Your task to perform on an android device: open a new tab in the chrome app Image 0: 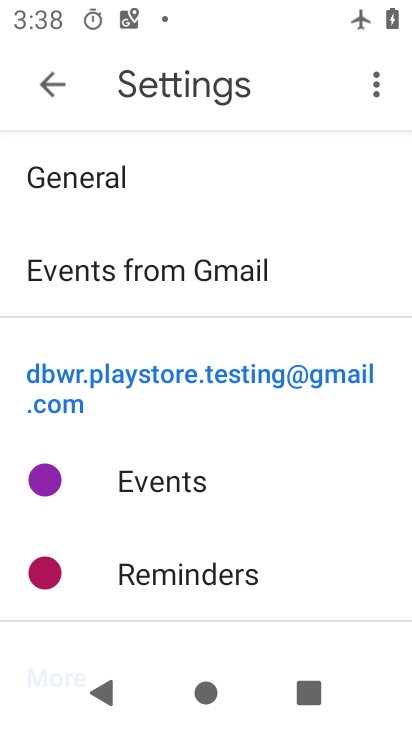
Step 0: press home button
Your task to perform on an android device: open a new tab in the chrome app Image 1: 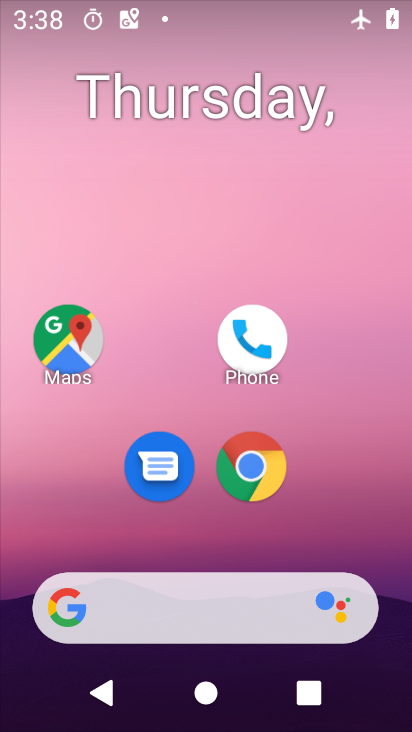
Step 1: click (234, 472)
Your task to perform on an android device: open a new tab in the chrome app Image 2: 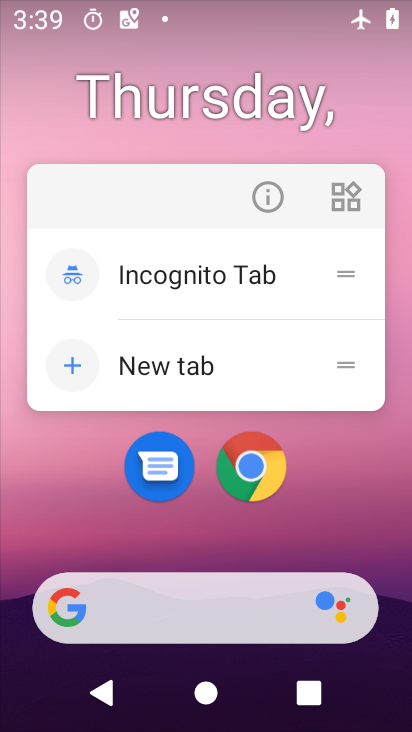
Step 2: drag from (200, 533) to (288, 1)
Your task to perform on an android device: open a new tab in the chrome app Image 3: 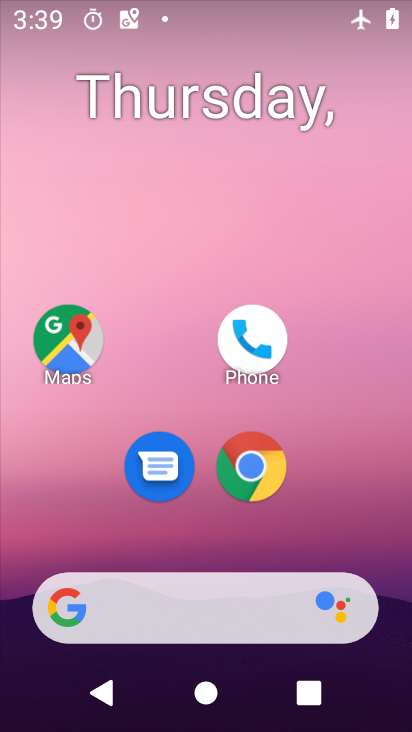
Step 3: click (253, 450)
Your task to perform on an android device: open a new tab in the chrome app Image 4: 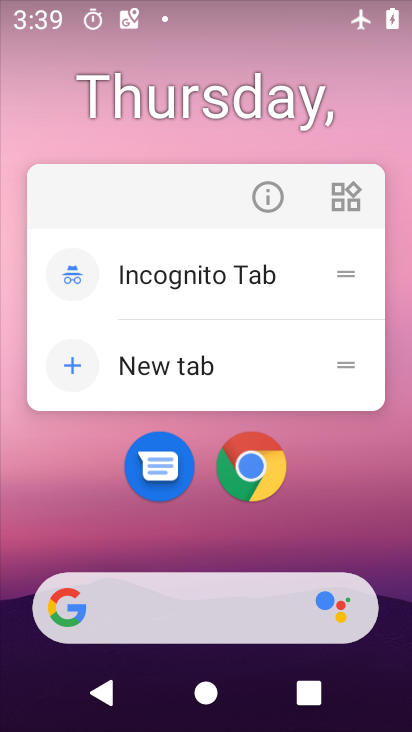
Step 4: click (260, 200)
Your task to perform on an android device: open a new tab in the chrome app Image 5: 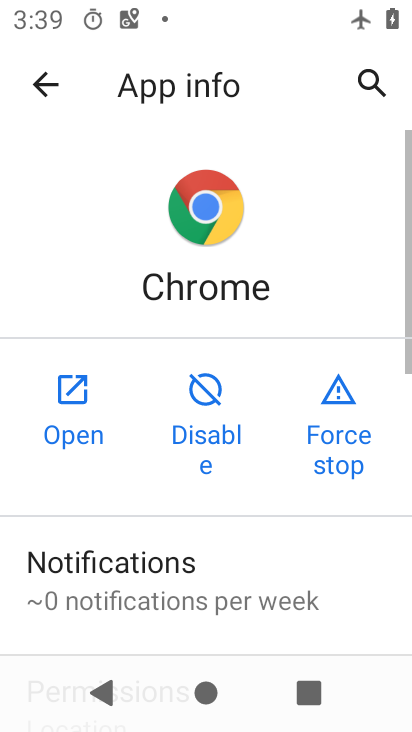
Step 5: drag from (177, 573) to (228, 242)
Your task to perform on an android device: open a new tab in the chrome app Image 6: 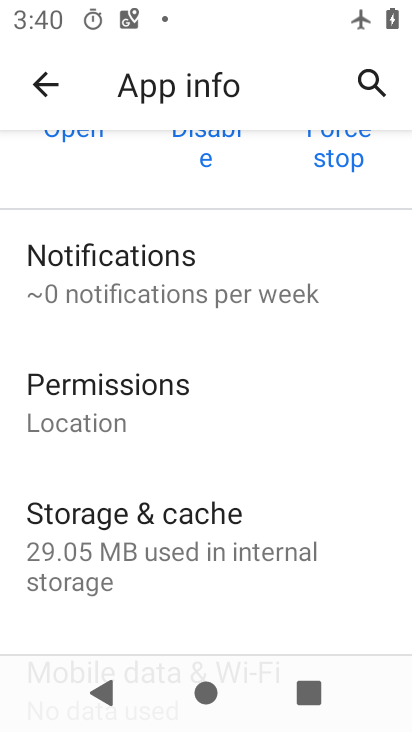
Step 6: click (90, 136)
Your task to perform on an android device: open a new tab in the chrome app Image 7: 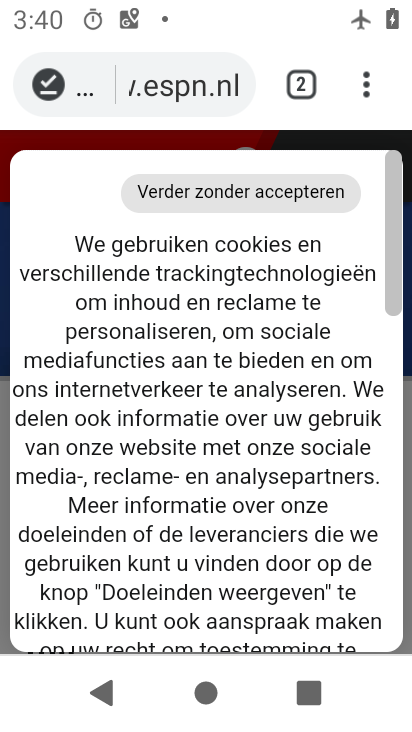
Step 7: drag from (182, 570) to (299, 308)
Your task to perform on an android device: open a new tab in the chrome app Image 8: 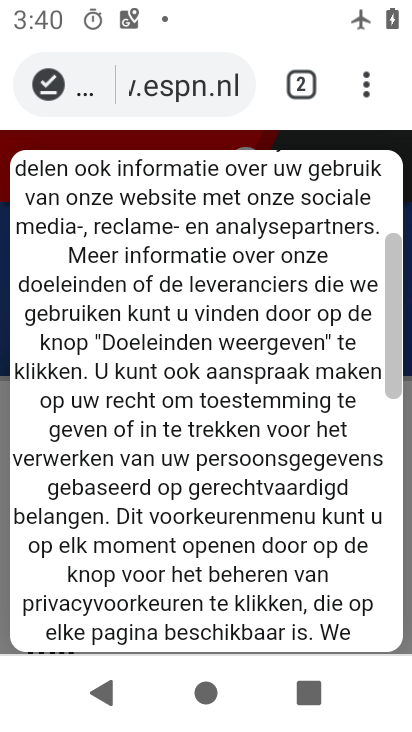
Step 8: drag from (208, 593) to (378, 153)
Your task to perform on an android device: open a new tab in the chrome app Image 9: 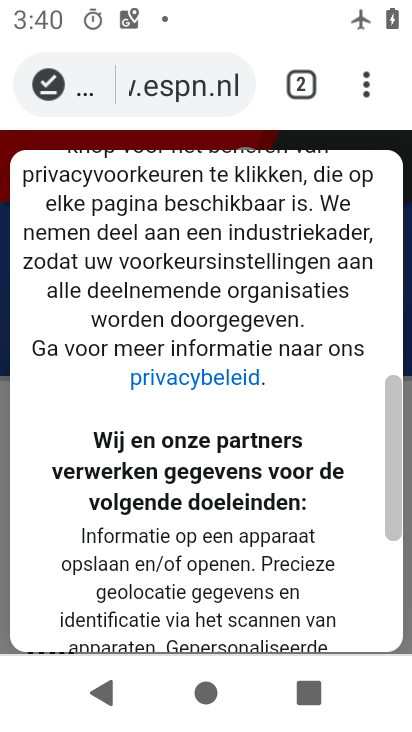
Step 9: click (308, 81)
Your task to perform on an android device: open a new tab in the chrome app Image 10: 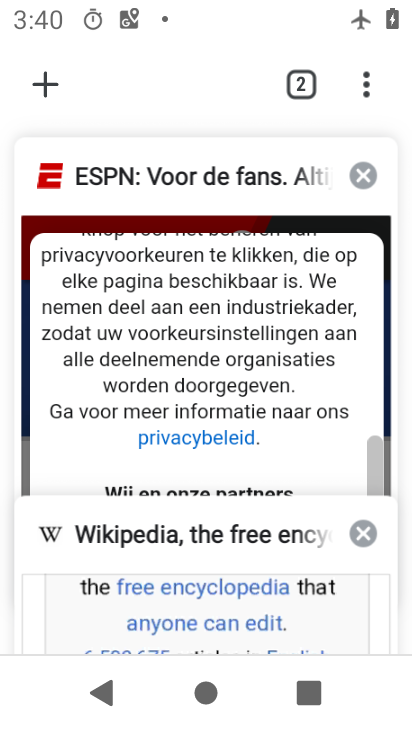
Step 10: click (40, 79)
Your task to perform on an android device: open a new tab in the chrome app Image 11: 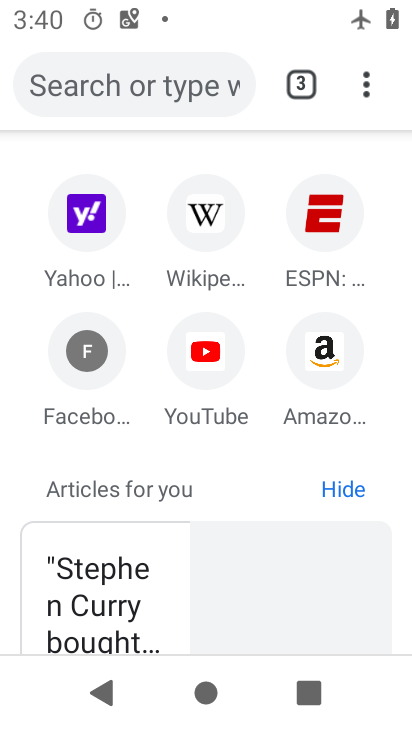
Step 11: task complete